Your task to perform on an android device: check the backup settings in the google photos Image 0: 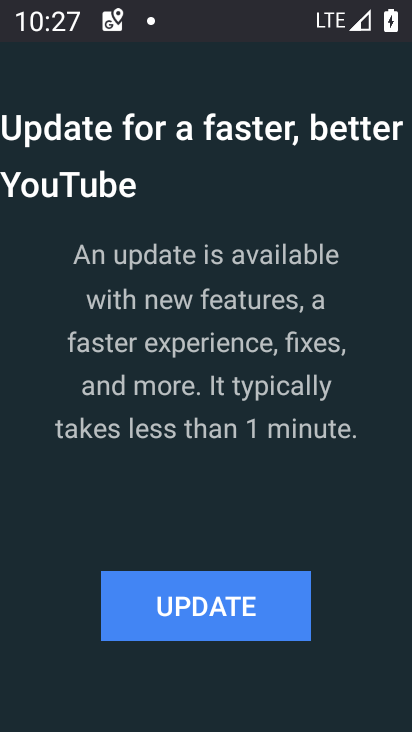
Step 0: press home button
Your task to perform on an android device: check the backup settings in the google photos Image 1: 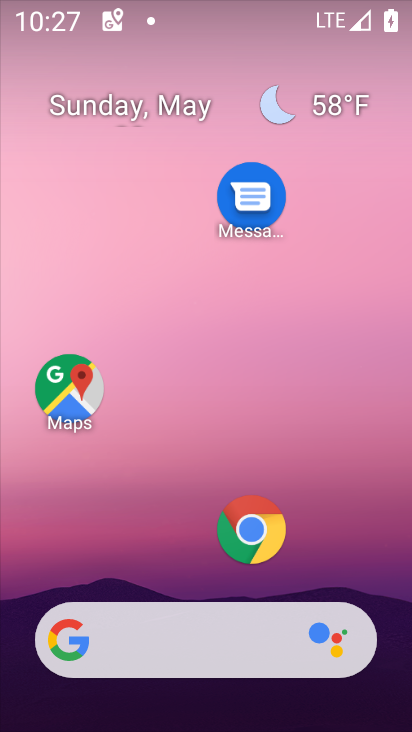
Step 1: drag from (144, 579) to (177, 147)
Your task to perform on an android device: check the backup settings in the google photos Image 2: 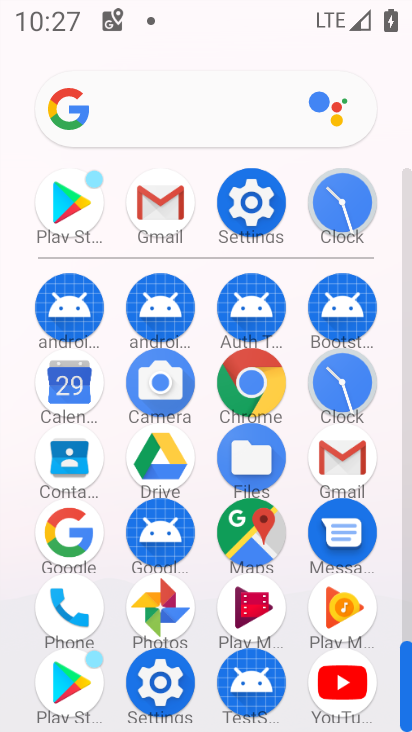
Step 2: click (170, 608)
Your task to perform on an android device: check the backup settings in the google photos Image 3: 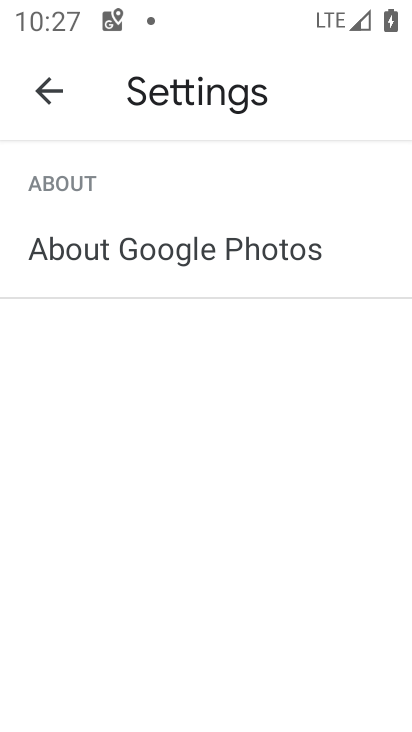
Step 3: click (55, 80)
Your task to perform on an android device: check the backup settings in the google photos Image 4: 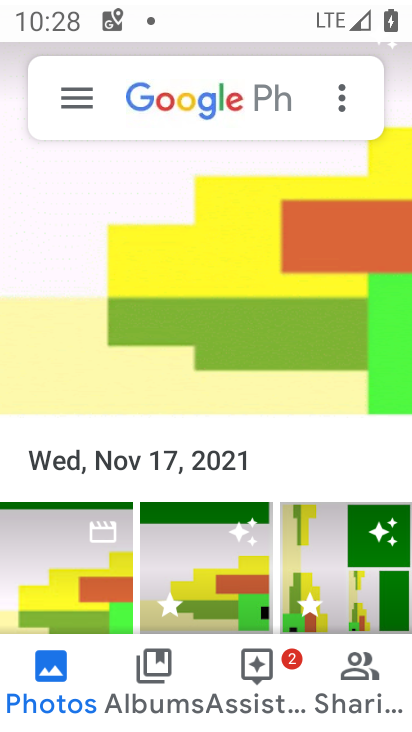
Step 4: click (98, 94)
Your task to perform on an android device: check the backup settings in the google photos Image 5: 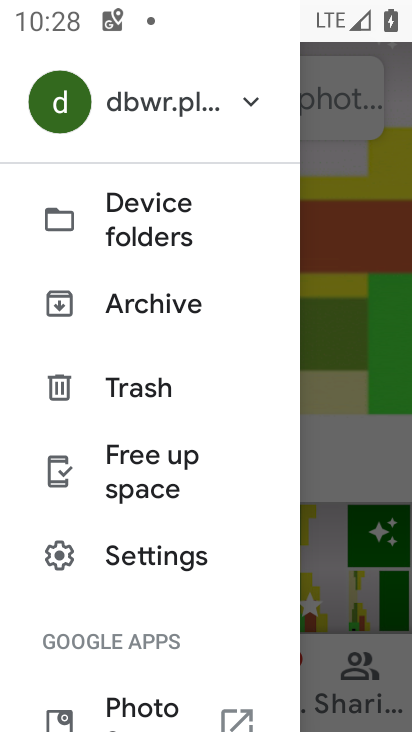
Step 5: drag from (157, 604) to (181, 448)
Your task to perform on an android device: check the backup settings in the google photos Image 6: 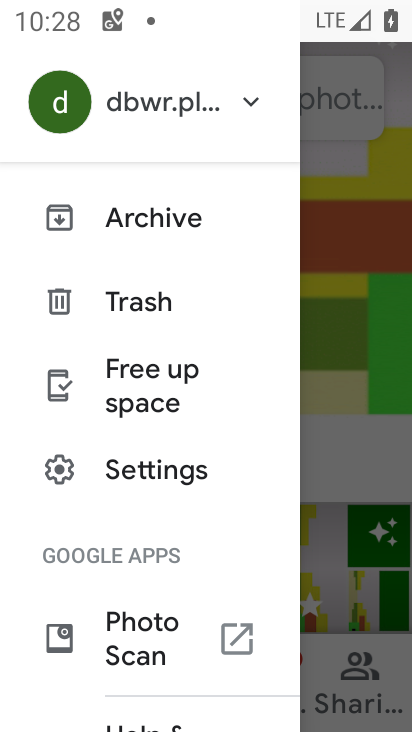
Step 6: click (161, 484)
Your task to perform on an android device: check the backup settings in the google photos Image 7: 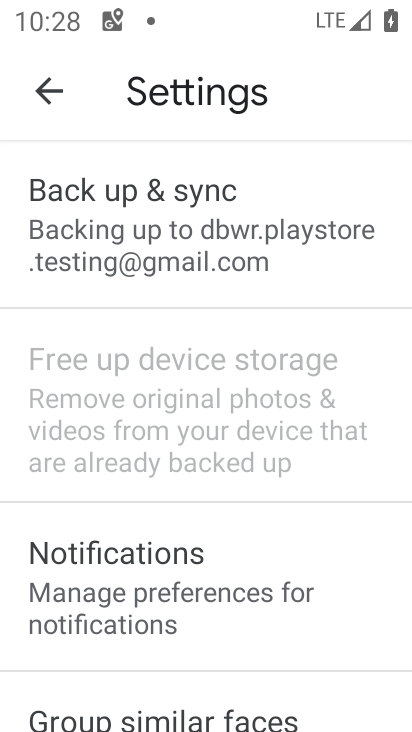
Step 7: click (203, 238)
Your task to perform on an android device: check the backup settings in the google photos Image 8: 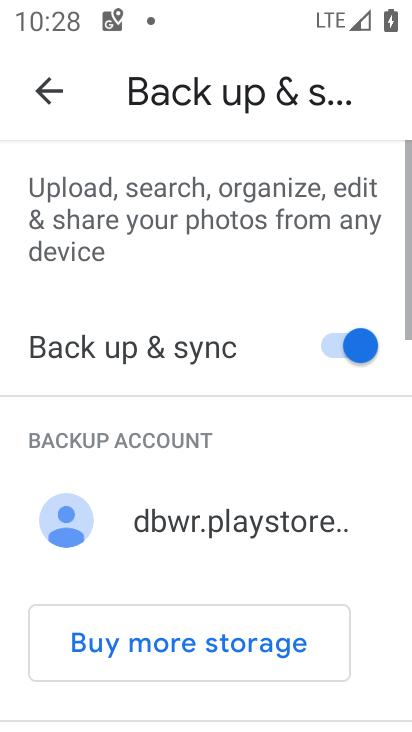
Step 8: task complete